Your task to perform on an android device: Search for sushi restaurants on Maps Image 0: 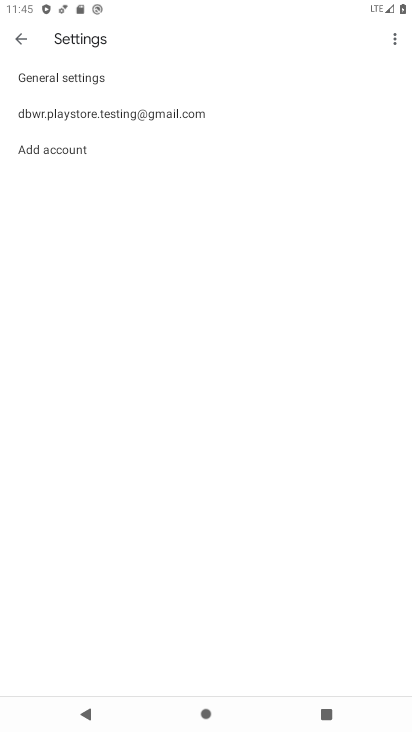
Step 0: press home button
Your task to perform on an android device: Search for sushi restaurants on Maps Image 1: 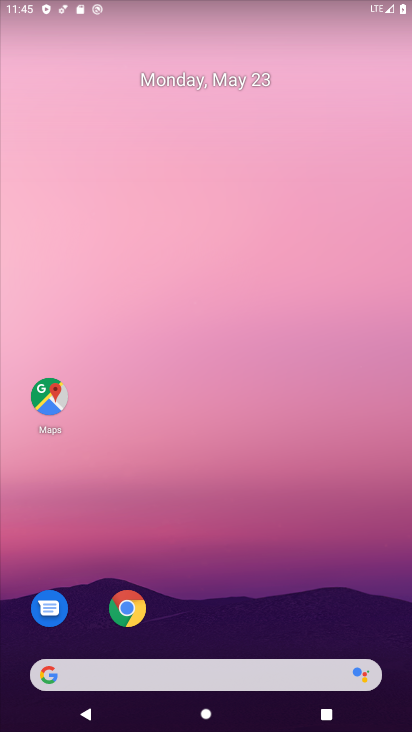
Step 1: drag from (210, 621) to (236, 4)
Your task to perform on an android device: Search for sushi restaurants on Maps Image 2: 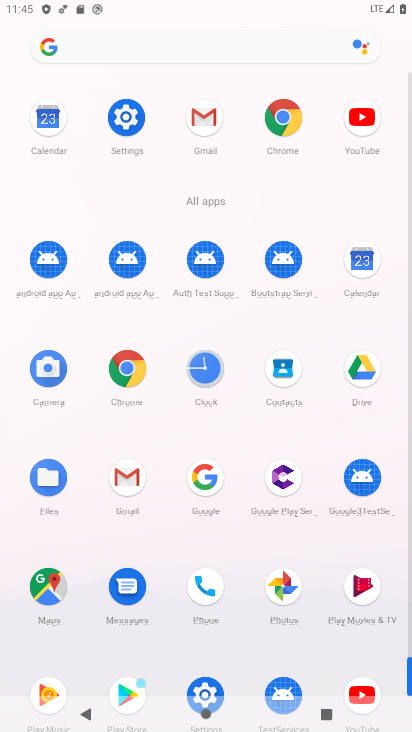
Step 2: click (47, 579)
Your task to perform on an android device: Search for sushi restaurants on Maps Image 3: 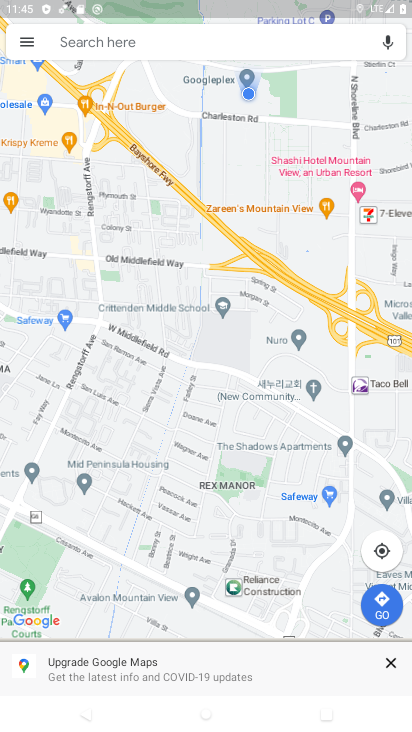
Step 3: click (103, 32)
Your task to perform on an android device: Search for sushi restaurants on Maps Image 4: 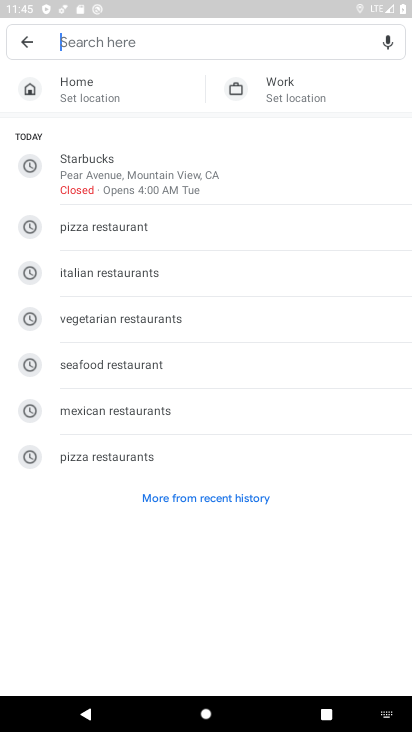
Step 4: click (196, 493)
Your task to perform on an android device: Search for sushi restaurants on Maps Image 5: 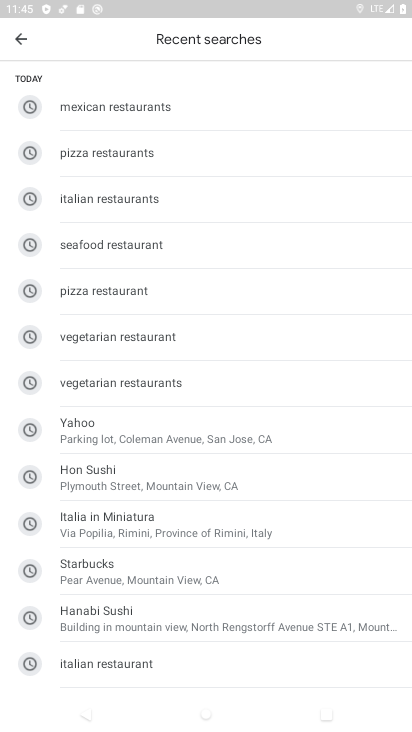
Step 5: click (21, 39)
Your task to perform on an android device: Search for sushi restaurants on Maps Image 6: 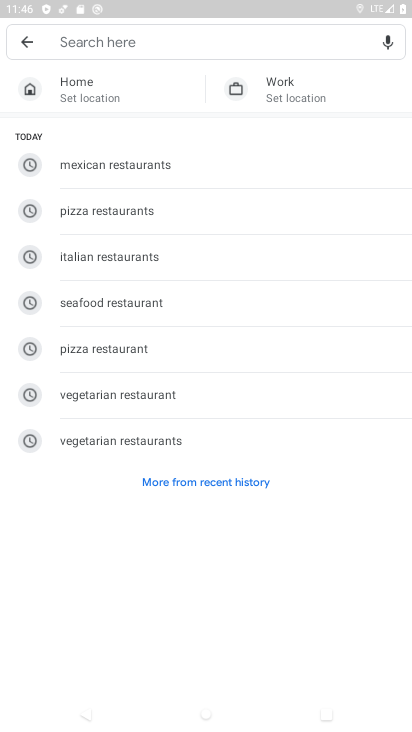
Step 6: click (102, 48)
Your task to perform on an android device: Search for sushi restaurants on Maps Image 7: 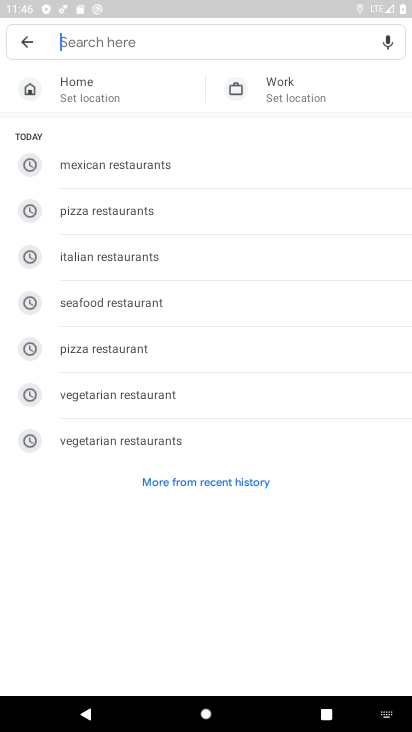
Step 7: type "sushi"
Your task to perform on an android device: Search for sushi restaurants on Maps Image 8: 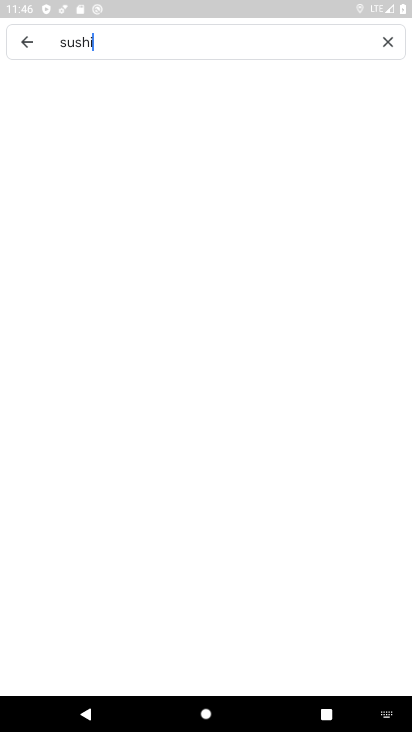
Step 8: type ""
Your task to perform on an android device: Search for sushi restaurants on Maps Image 9: 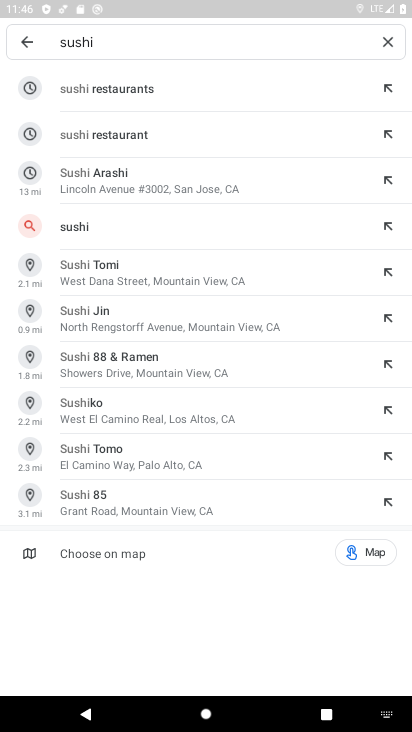
Step 9: click (110, 87)
Your task to perform on an android device: Search for sushi restaurants on Maps Image 10: 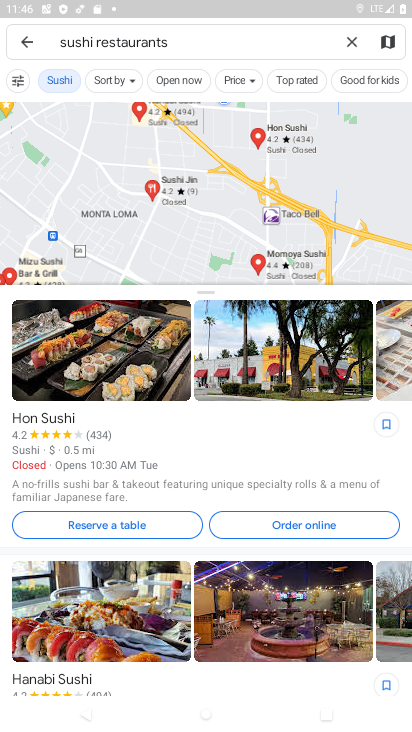
Step 10: task complete